Your task to perform on an android device: see creations saved in the google photos Image 0: 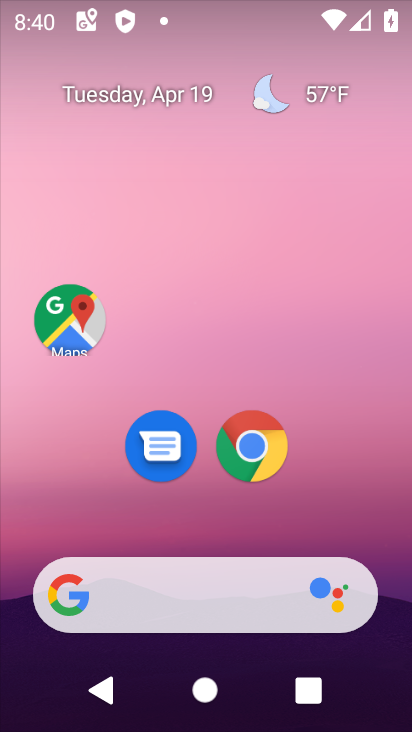
Step 0: drag from (313, 478) to (319, 156)
Your task to perform on an android device: see creations saved in the google photos Image 1: 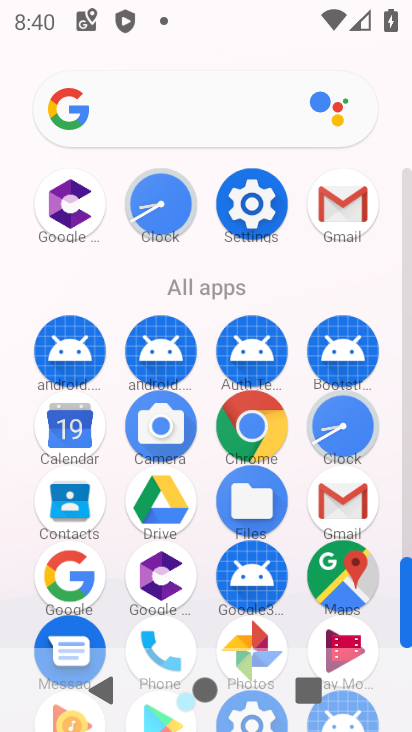
Step 1: drag from (202, 604) to (207, 301)
Your task to perform on an android device: see creations saved in the google photos Image 2: 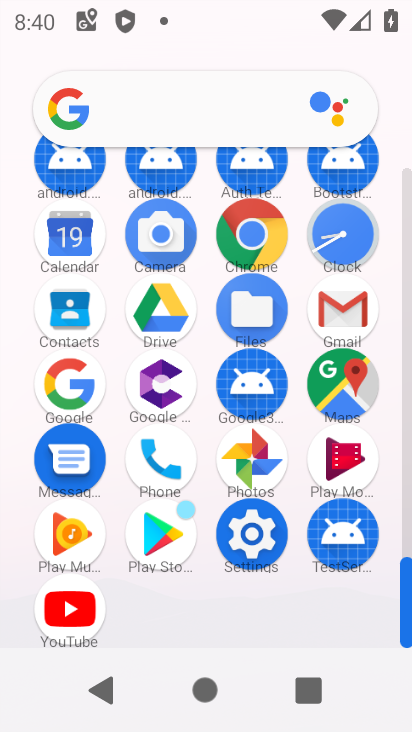
Step 2: click (266, 457)
Your task to perform on an android device: see creations saved in the google photos Image 3: 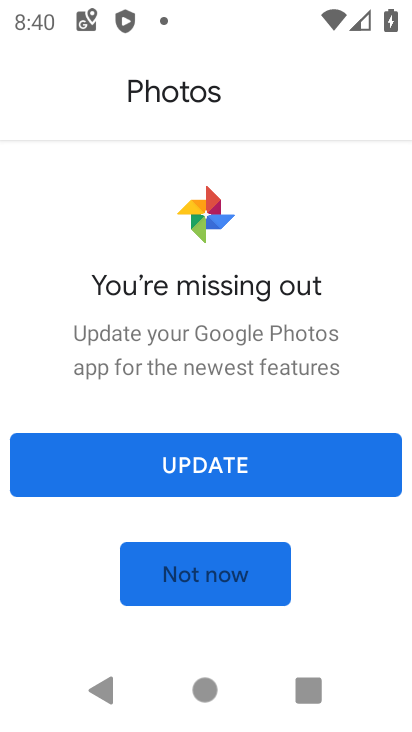
Step 3: click (227, 567)
Your task to perform on an android device: see creations saved in the google photos Image 4: 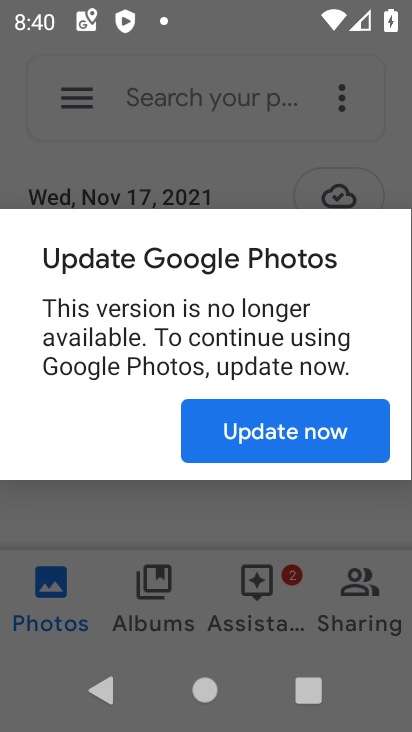
Step 4: click (216, 112)
Your task to perform on an android device: see creations saved in the google photos Image 5: 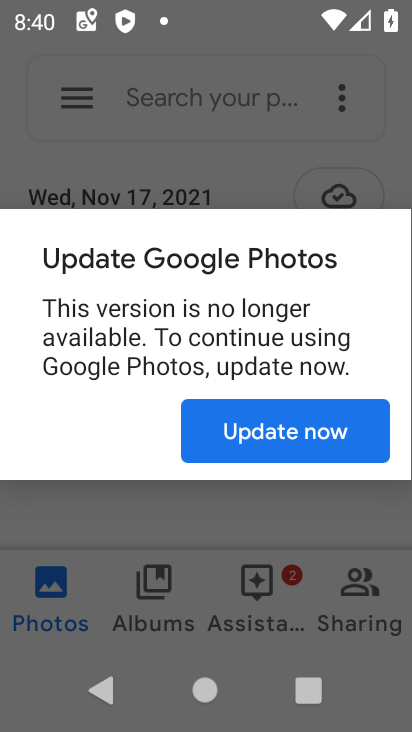
Step 5: click (230, 436)
Your task to perform on an android device: see creations saved in the google photos Image 6: 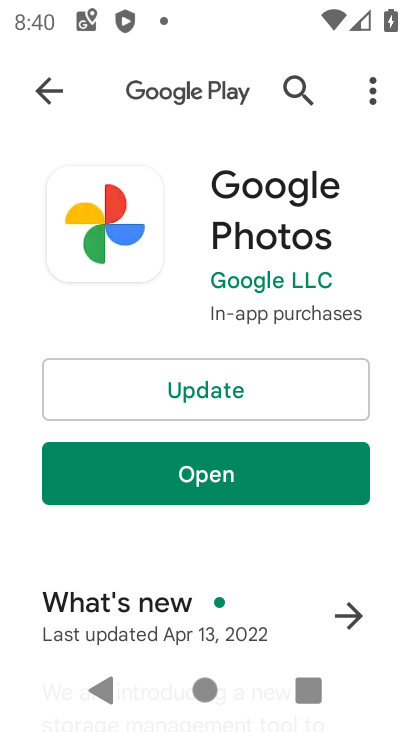
Step 6: click (208, 380)
Your task to perform on an android device: see creations saved in the google photos Image 7: 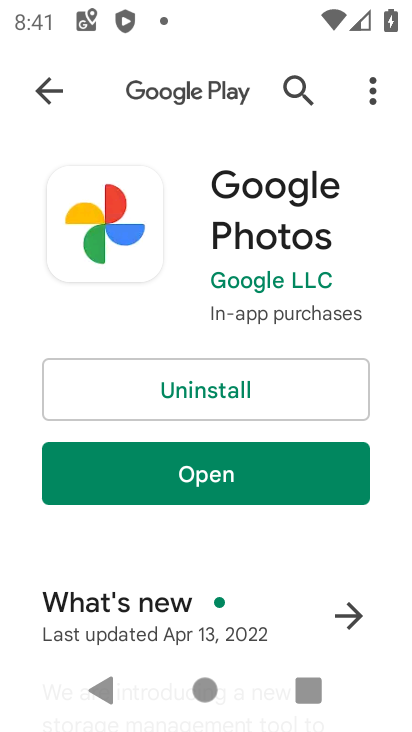
Step 7: click (200, 466)
Your task to perform on an android device: see creations saved in the google photos Image 8: 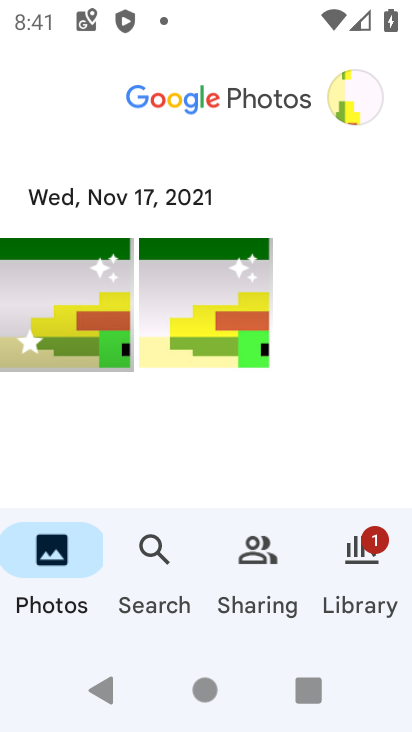
Step 8: click (155, 554)
Your task to perform on an android device: see creations saved in the google photos Image 9: 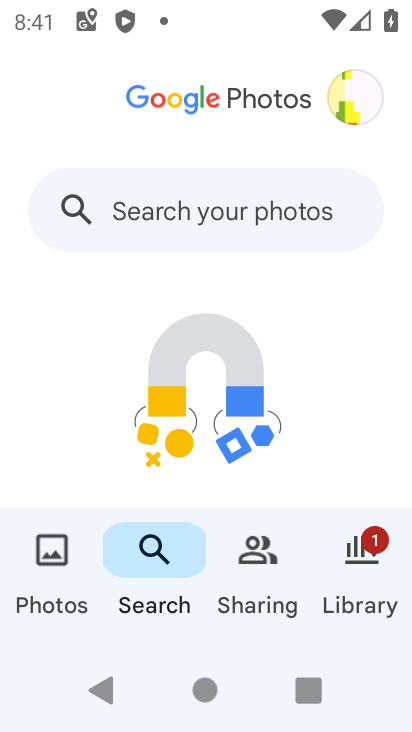
Step 9: click (247, 225)
Your task to perform on an android device: see creations saved in the google photos Image 10: 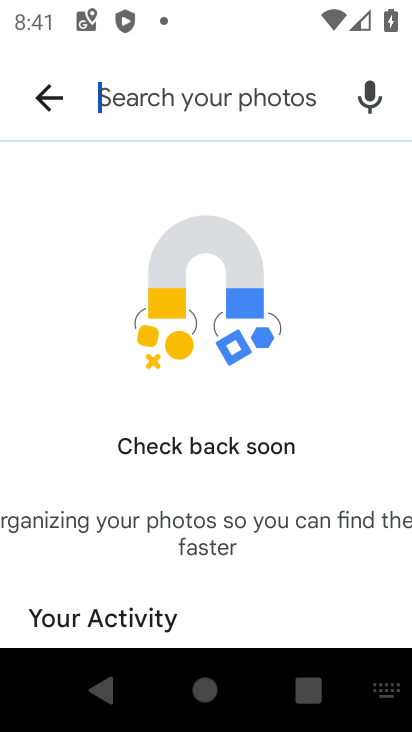
Step 10: click (41, 89)
Your task to perform on an android device: see creations saved in the google photos Image 11: 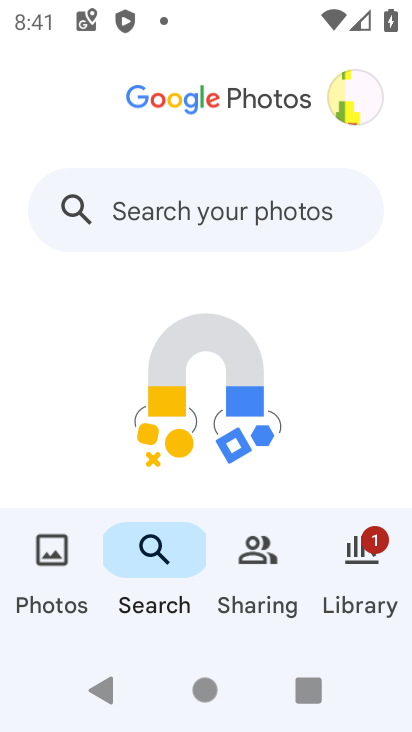
Step 11: click (383, 565)
Your task to perform on an android device: see creations saved in the google photos Image 12: 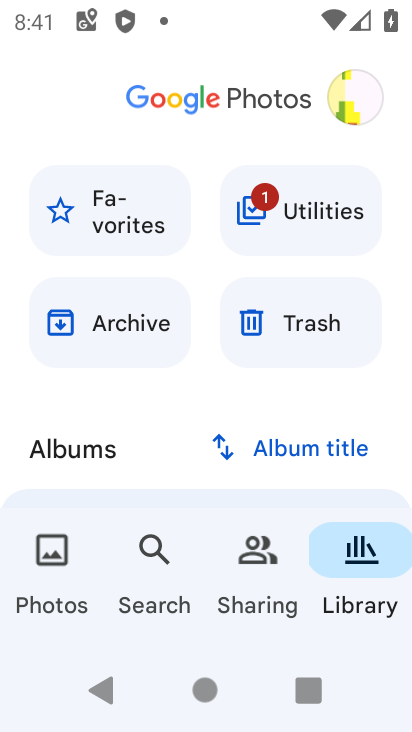
Step 12: drag from (159, 433) to (140, 139)
Your task to perform on an android device: see creations saved in the google photos Image 13: 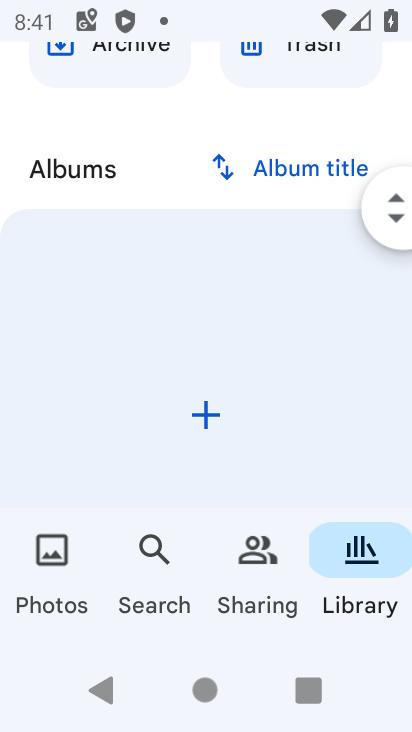
Step 13: drag from (176, 437) to (149, 90)
Your task to perform on an android device: see creations saved in the google photos Image 14: 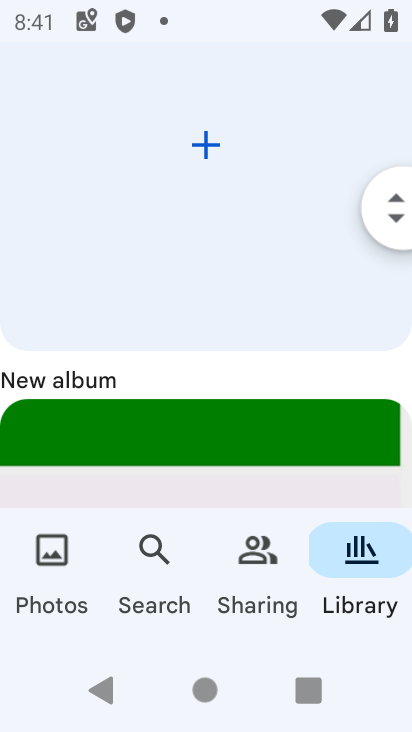
Step 14: drag from (387, 214) to (395, 49)
Your task to perform on an android device: see creations saved in the google photos Image 15: 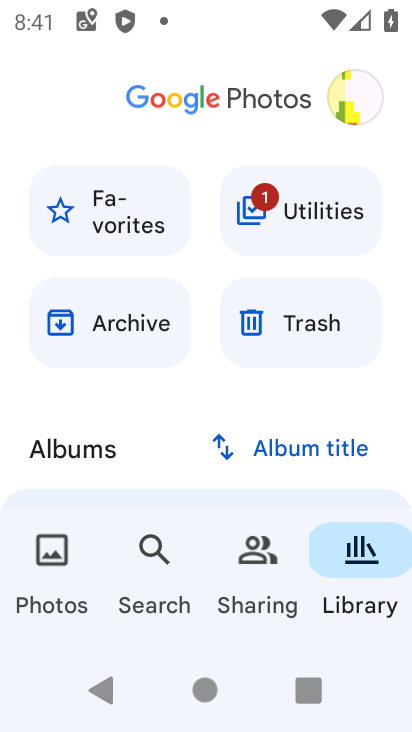
Step 15: click (268, 560)
Your task to perform on an android device: see creations saved in the google photos Image 16: 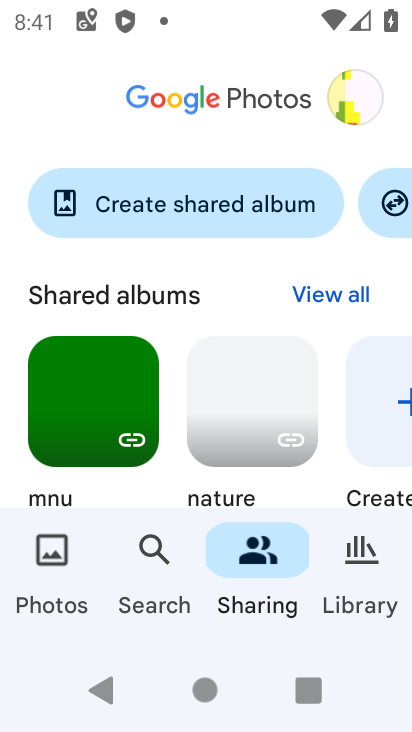
Step 16: drag from (373, 416) to (143, 408)
Your task to perform on an android device: see creations saved in the google photos Image 17: 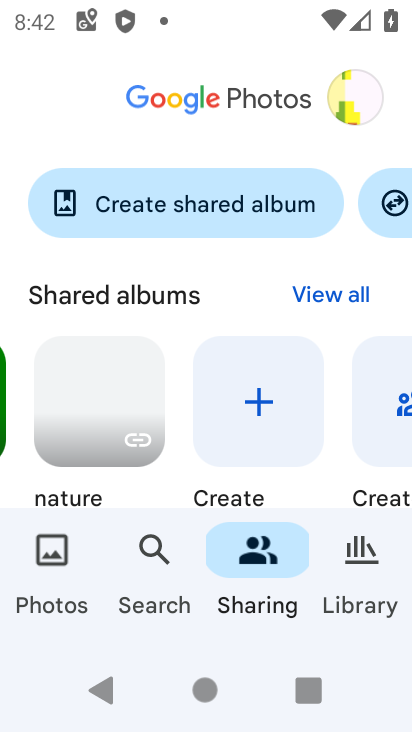
Step 17: drag from (381, 434) to (36, 439)
Your task to perform on an android device: see creations saved in the google photos Image 18: 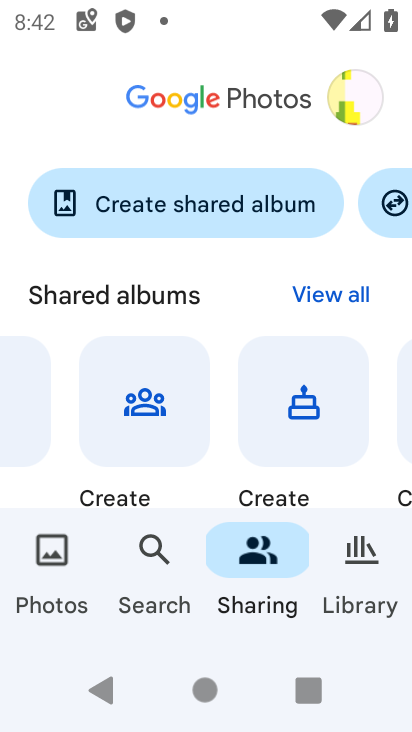
Step 18: drag from (334, 420) to (45, 429)
Your task to perform on an android device: see creations saved in the google photos Image 19: 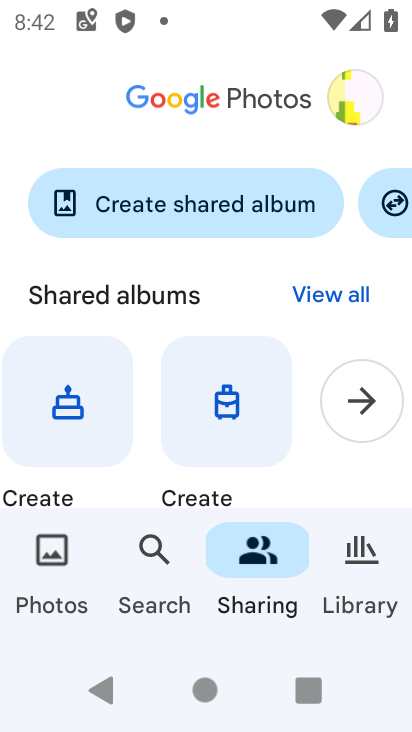
Step 19: drag from (358, 421) to (160, 422)
Your task to perform on an android device: see creations saved in the google photos Image 20: 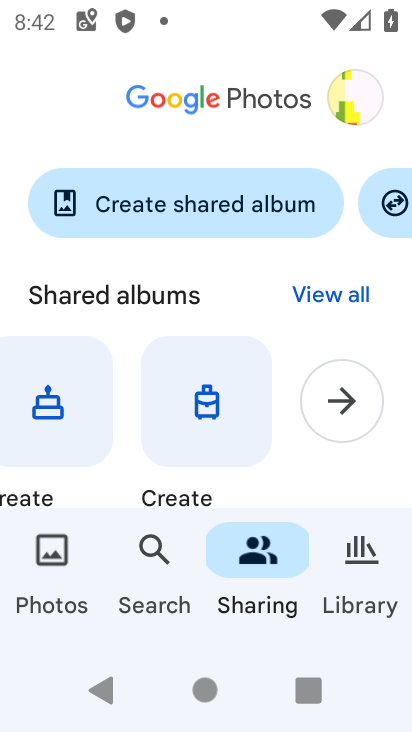
Step 20: click (348, 411)
Your task to perform on an android device: see creations saved in the google photos Image 21: 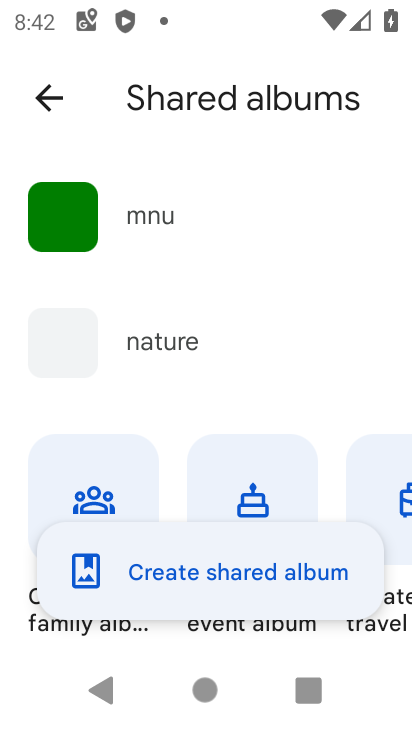
Step 21: drag from (231, 516) to (221, 241)
Your task to perform on an android device: see creations saved in the google photos Image 22: 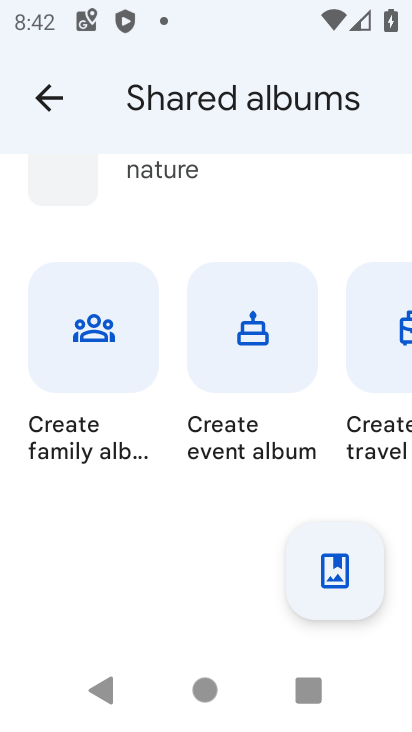
Step 22: drag from (302, 378) to (13, 372)
Your task to perform on an android device: see creations saved in the google photos Image 23: 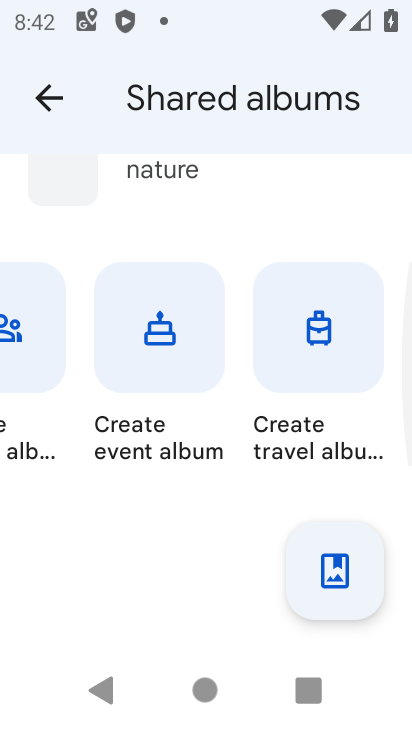
Step 23: drag from (280, 360) to (31, 370)
Your task to perform on an android device: see creations saved in the google photos Image 24: 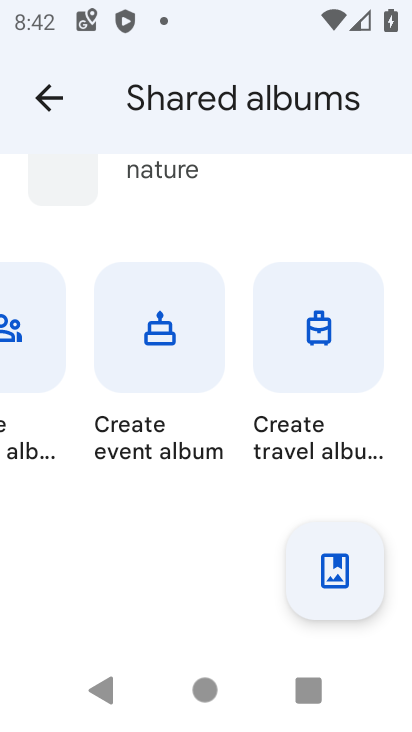
Step 24: click (50, 96)
Your task to perform on an android device: see creations saved in the google photos Image 25: 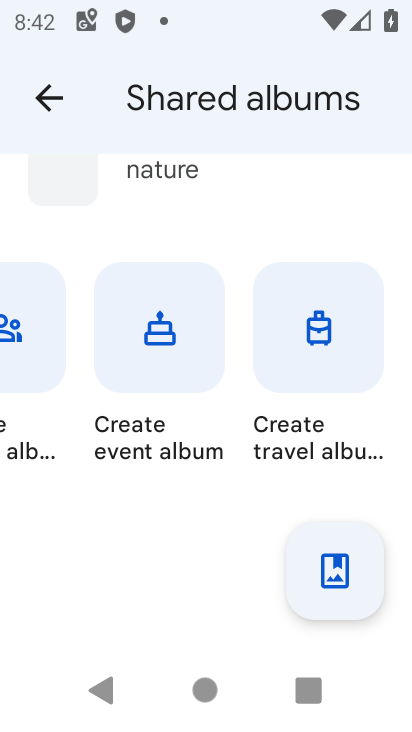
Step 25: press back button
Your task to perform on an android device: see creations saved in the google photos Image 26: 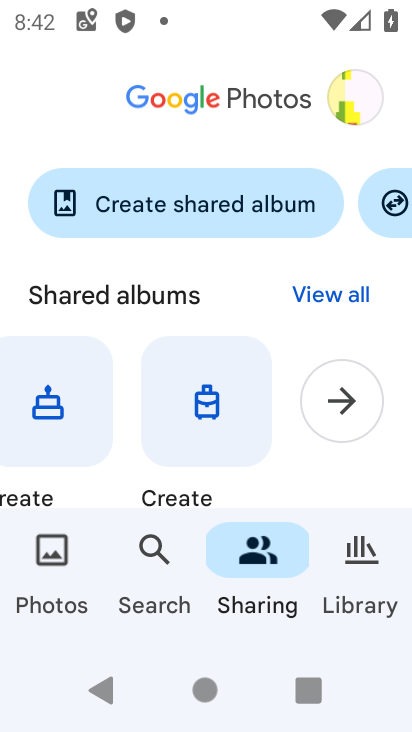
Step 26: drag from (246, 207) to (18, 205)
Your task to perform on an android device: see creations saved in the google photos Image 27: 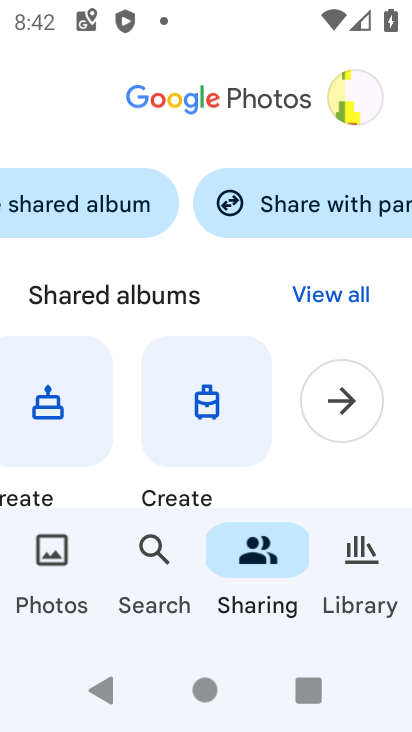
Step 27: drag from (280, 424) to (297, 79)
Your task to perform on an android device: see creations saved in the google photos Image 28: 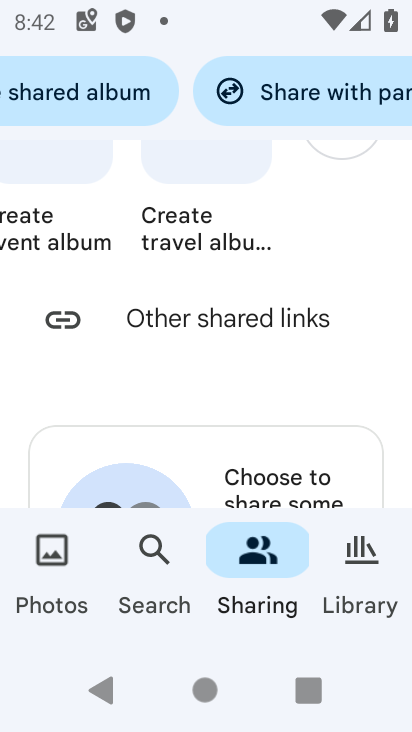
Step 28: drag from (249, 423) to (278, 119)
Your task to perform on an android device: see creations saved in the google photos Image 29: 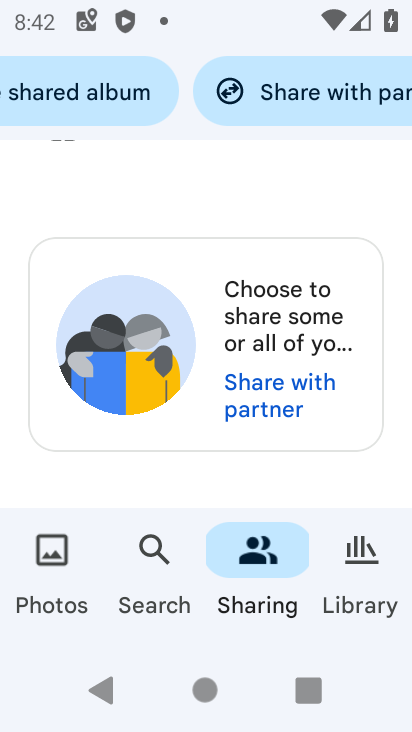
Step 29: drag from (204, 473) to (238, 184)
Your task to perform on an android device: see creations saved in the google photos Image 30: 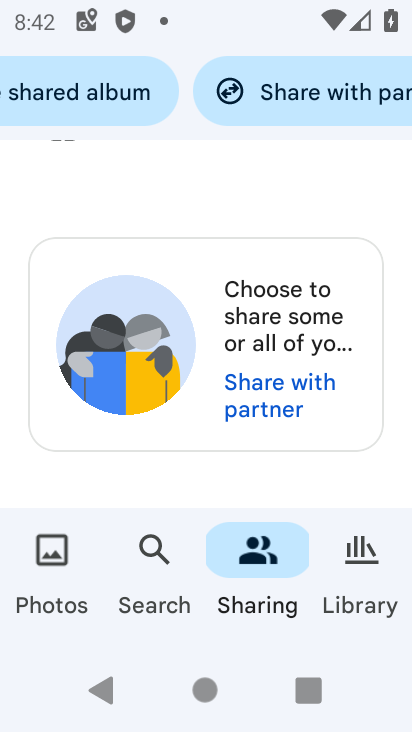
Step 30: click (147, 548)
Your task to perform on an android device: see creations saved in the google photos Image 31: 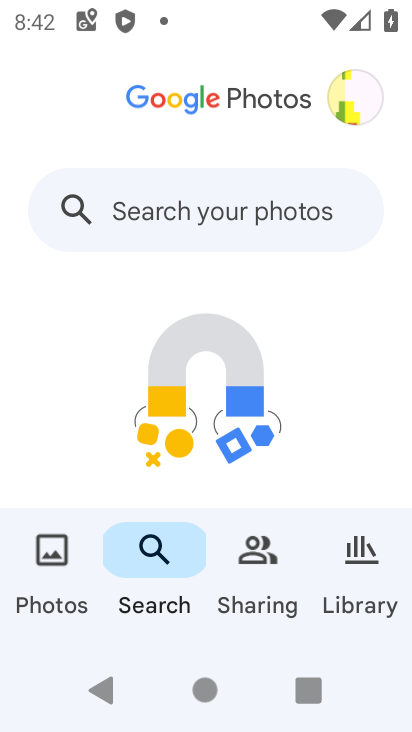
Step 31: click (54, 575)
Your task to perform on an android device: see creations saved in the google photos Image 32: 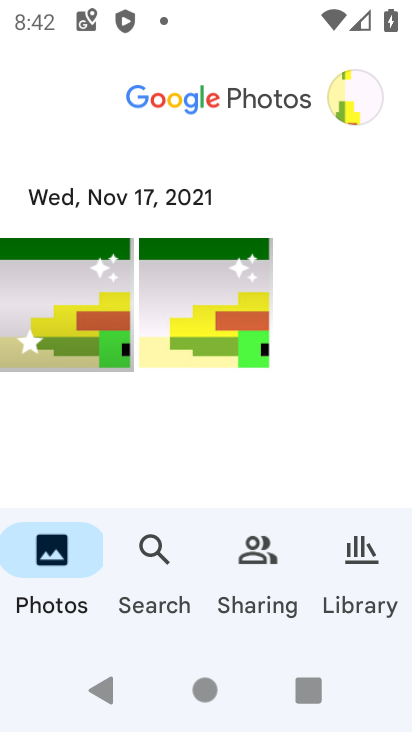
Step 32: task complete